Your task to perform on an android device: Go to CNN.com Image 0: 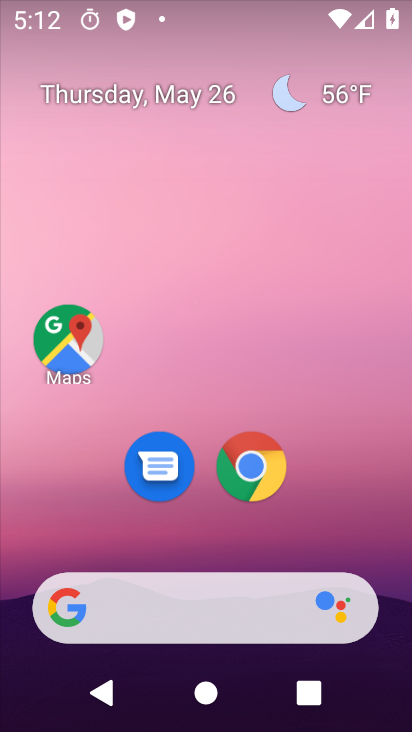
Step 0: click (246, 454)
Your task to perform on an android device: Go to CNN.com Image 1: 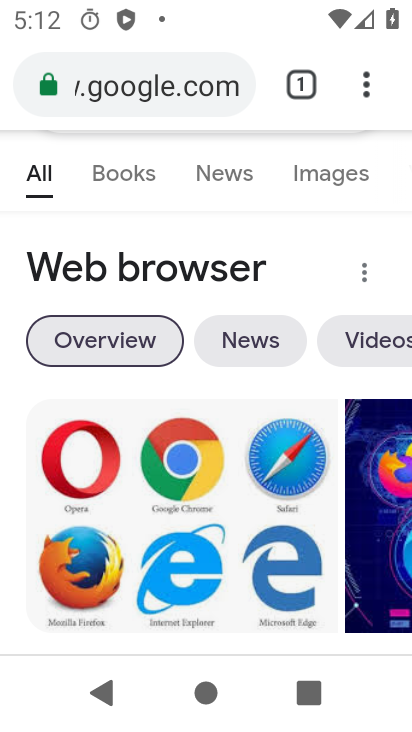
Step 1: click (158, 88)
Your task to perform on an android device: Go to CNN.com Image 2: 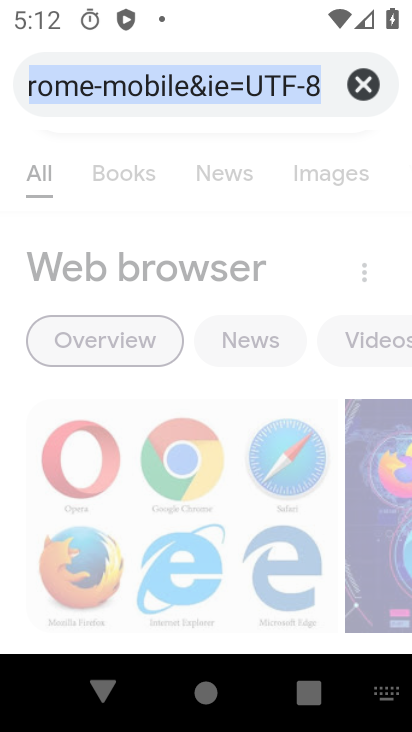
Step 2: click (356, 86)
Your task to perform on an android device: Go to CNN.com Image 3: 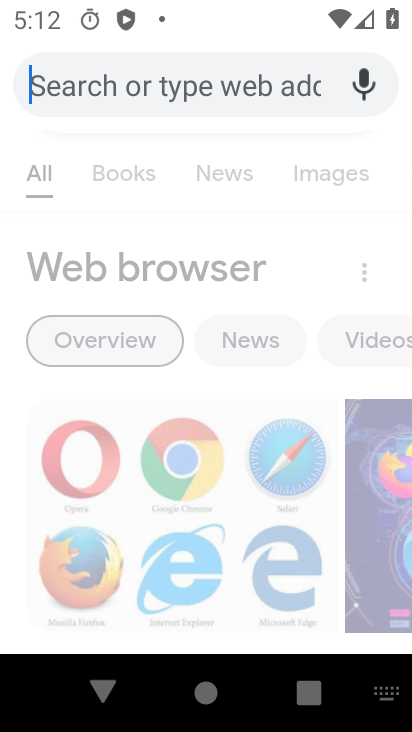
Step 3: type "CNN.com"
Your task to perform on an android device: Go to CNN.com Image 4: 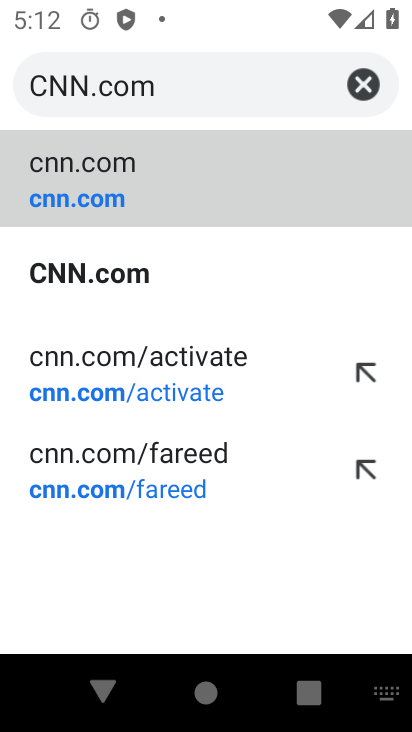
Step 4: click (77, 195)
Your task to perform on an android device: Go to CNN.com Image 5: 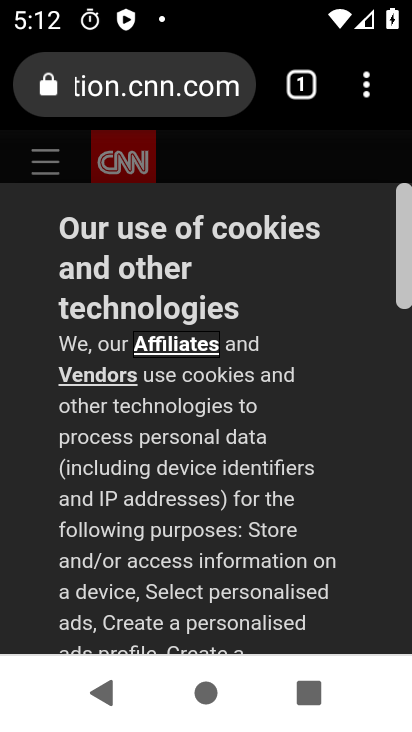
Step 5: task complete